Your task to perform on an android device: turn off data saver in the chrome app Image 0: 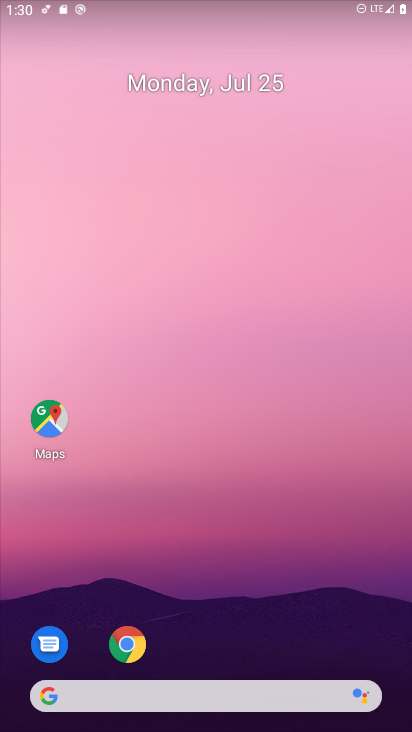
Step 0: click (125, 645)
Your task to perform on an android device: turn off data saver in the chrome app Image 1: 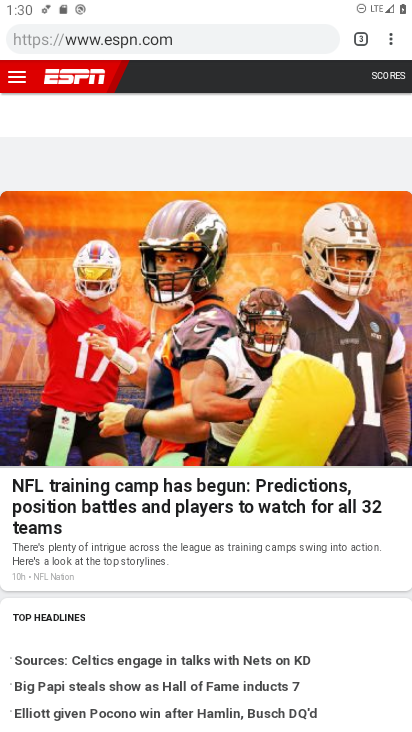
Step 1: click (391, 44)
Your task to perform on an android device: turn off data saver in the chrome app Image 2: 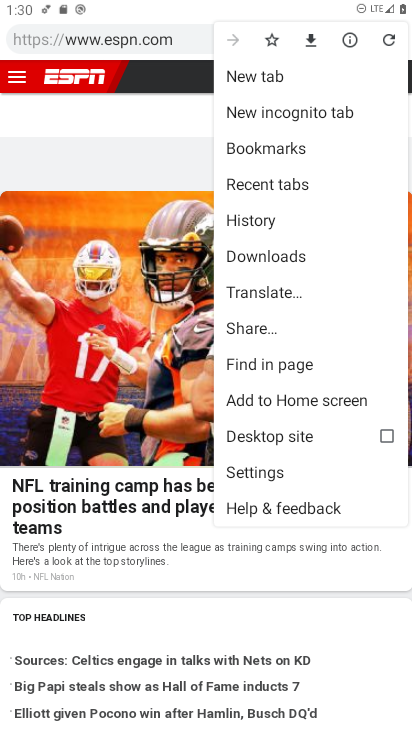
Step 2: click (255, 467)
Your task to perform on an android device: turn off data saver in the chrome app Image 3: 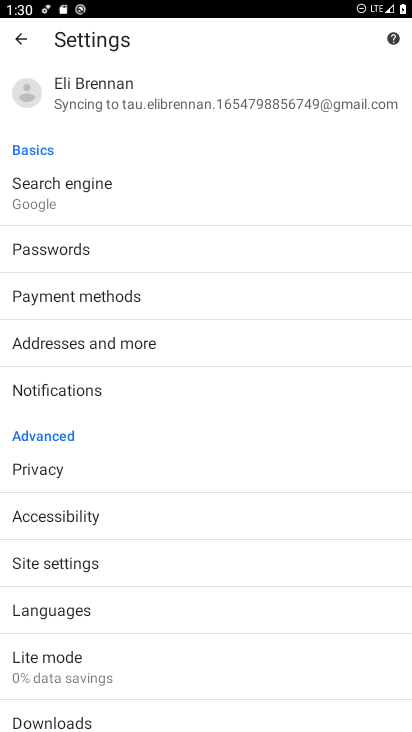
Step 3: click (43, 660)
Your task to perform on an android device: turn off data saver in the chrome app Image 4: 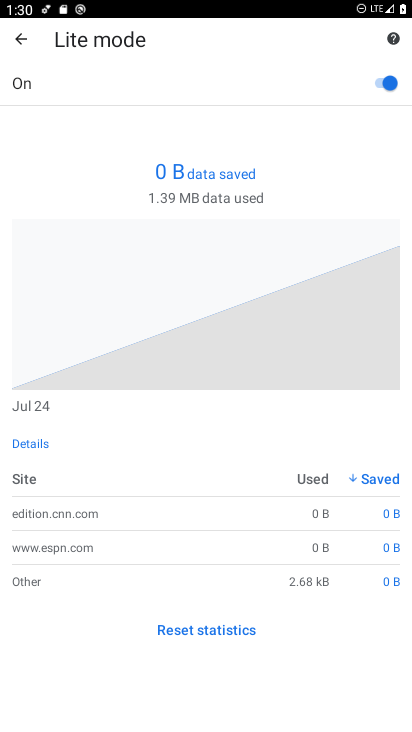
Step 4: click (394, 76)
Your task to perform on an android device: turn off data saver in the chrome app Image 5: 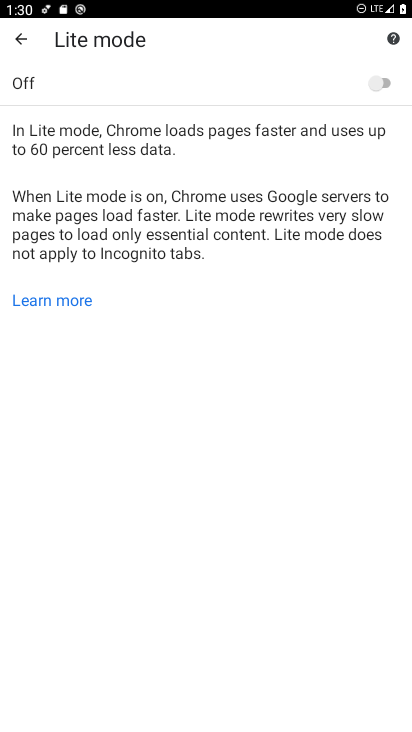
Step 5: task complete